Your task to perform on an android device: toggle javascript in the chrome app Image 0: 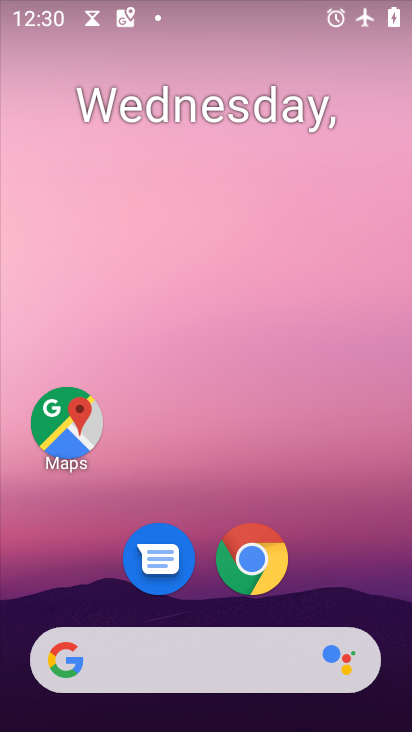
Step 0: drag from (342, 572) to (271, 50)
Your task to perform on an android device: toggle javascript in the chrome app Image 1: 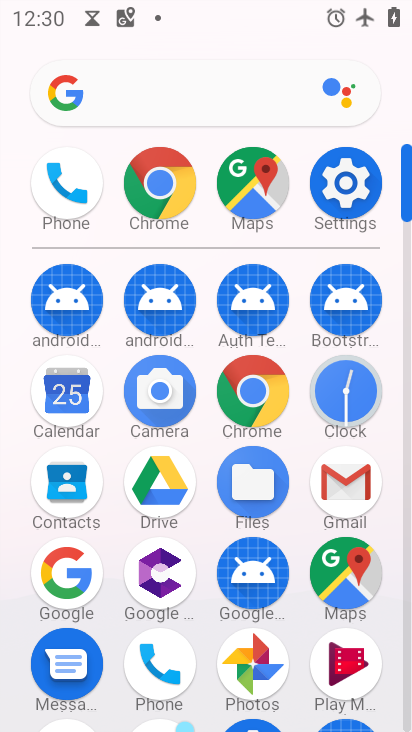
Step 1: click (166, 176)
Your task to perform on an android device: toggle javascript in the chrome app Image 2: 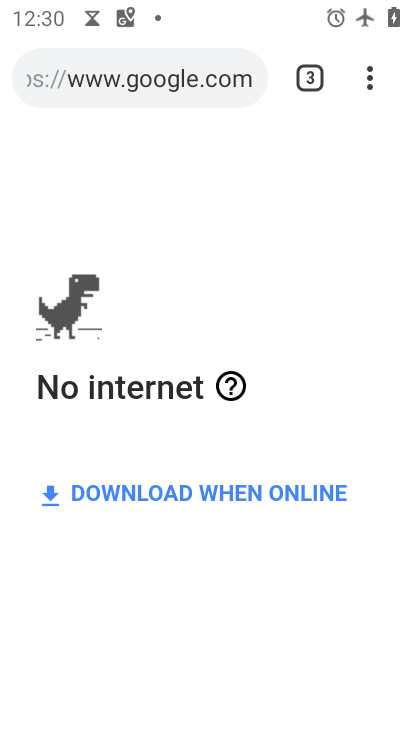
Step 2: drag from (371, 85) to (179, 601)
Your task to perform on an android device: toggle javascript in the chrome app Image 3: 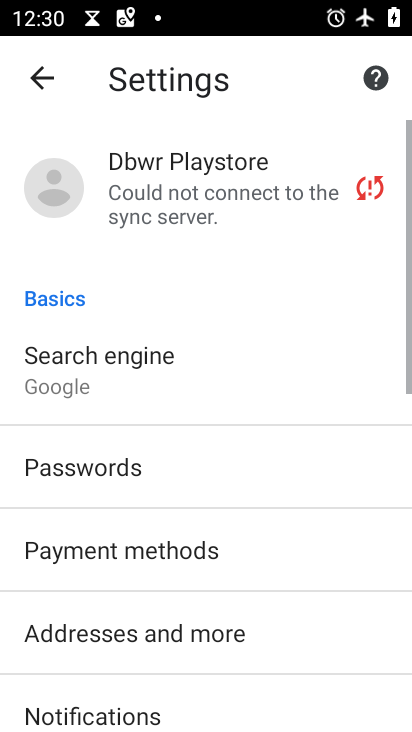
Step 3: drag from (174, 597) to (235, 52)
Your task to perform on an android device: toggle javascript in the chrome app Image 4: 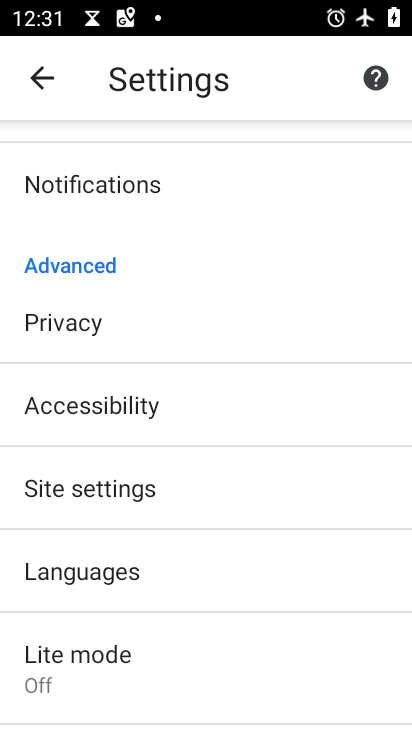
Step 4: click (187, 500)
Your task to perform on an android device: toggle javascript in the chrome app Image 5: 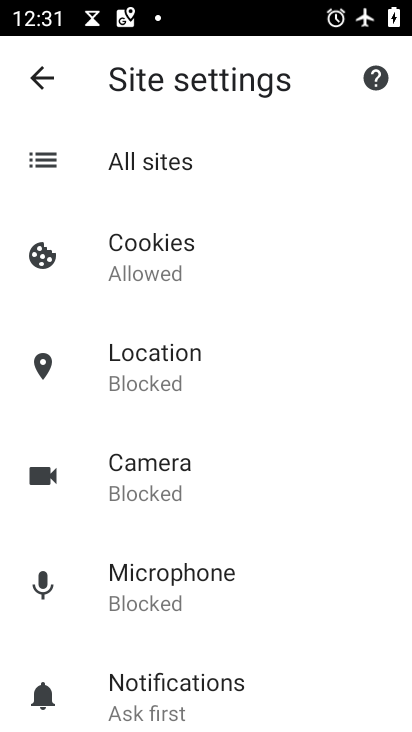
Step 5: drag from (217, 590) to (169, 232)
Your task to perform on an android device: toggle javascript in the chrome app Image 6: 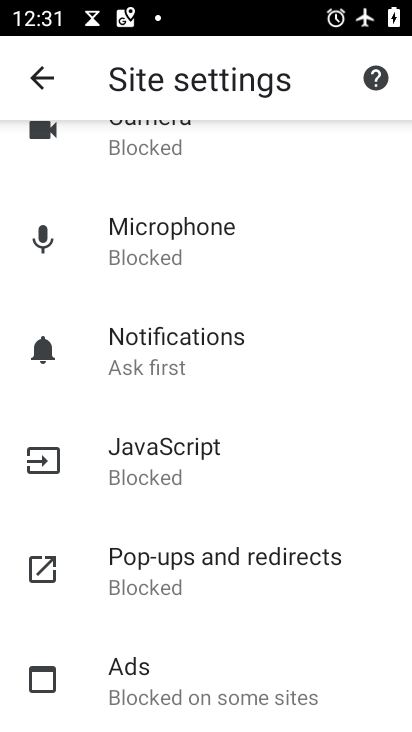
Step 6: click (181, 465)
Your task to perform on an android device: toggle javascript in the chrome app Image 7: 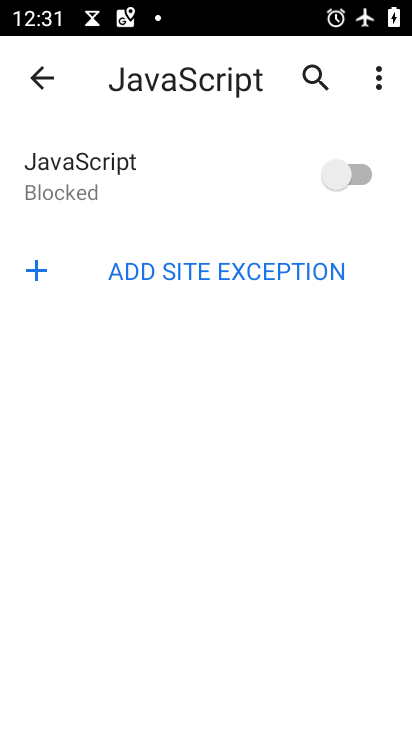
Step 7: click (332, 178)
Your task to perform on an android device: toggle javascript in the chrome app Image 8: 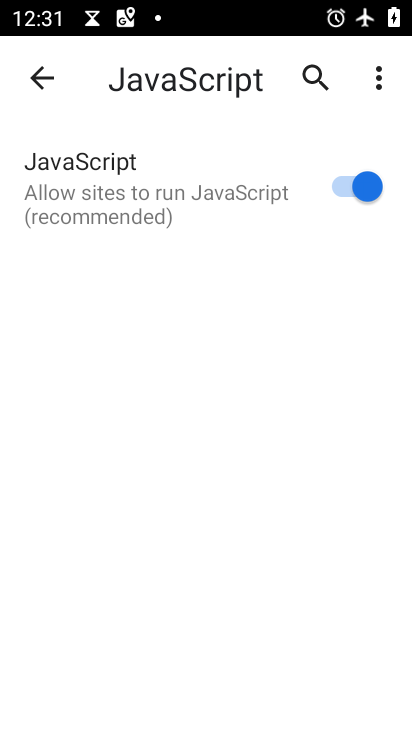
Step 8: task complete